Your task to perform on an android device: Check the weather Image 0: 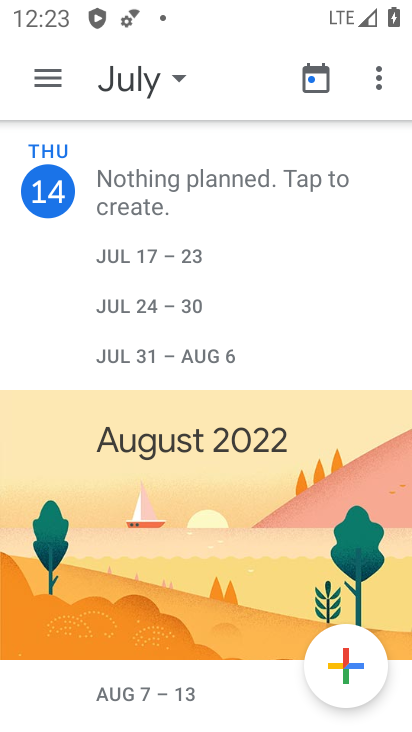
Step 0: press back button
Your task to perform on an android device: Check the weather Image 1: 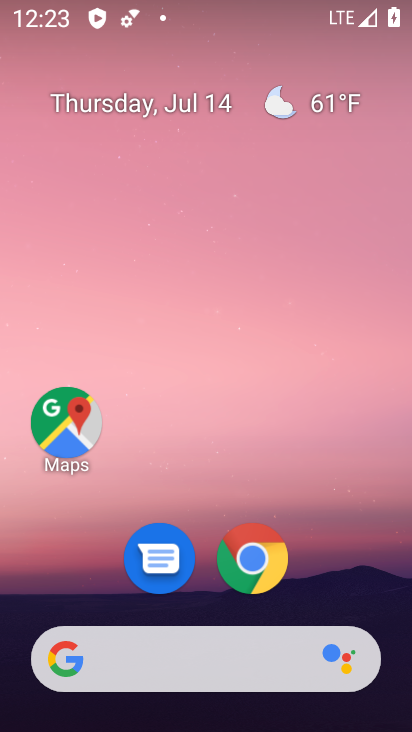
Step 1: click (273, 97)
Your task to perform on an android device: Check the weather Image 2: 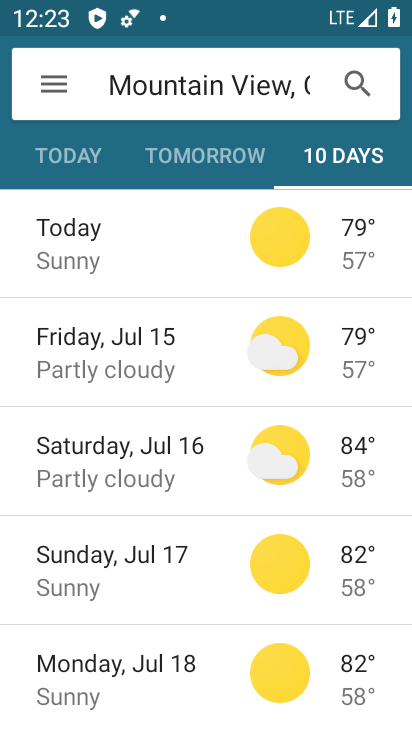
Step 2: drag from (155, 640) to (257, 182)
Your task to perform on an android device: Check the weather Image 3: 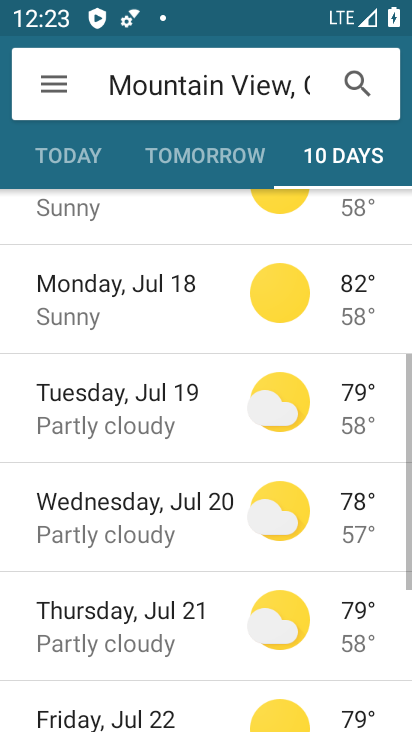
Step 3: click (48, 157)
Your task to perform on an android device: Check the weather Image 4: 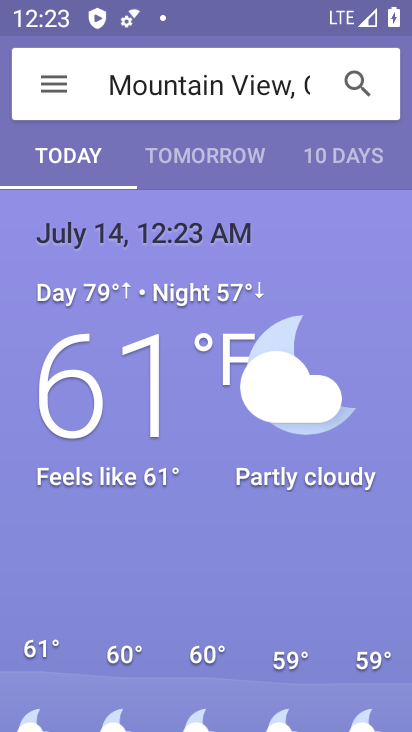
Step 4: task complete